Your task to perform on an android device: turn off sleep mode Image 0: 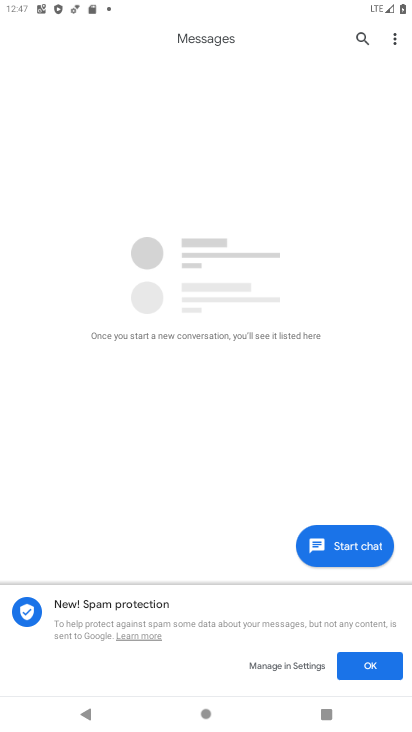
Step 0: press home button
Your task to perform on an android device: turn off sleep mode Image 1: 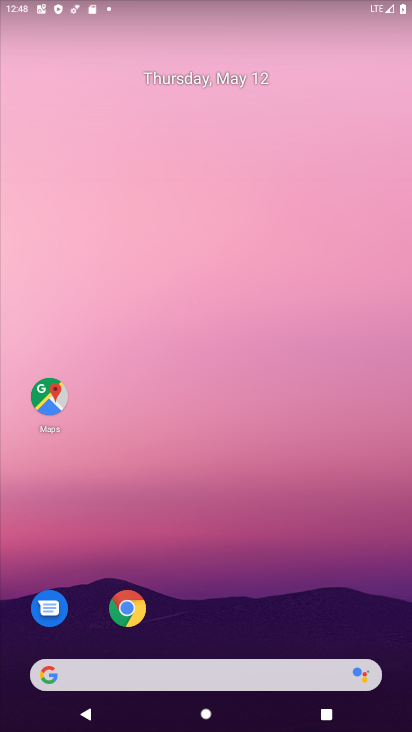
Step 1: drag from (290, 635) to (280, 15)
Your task to perform on an android device: turn off sleep mode Image 2: 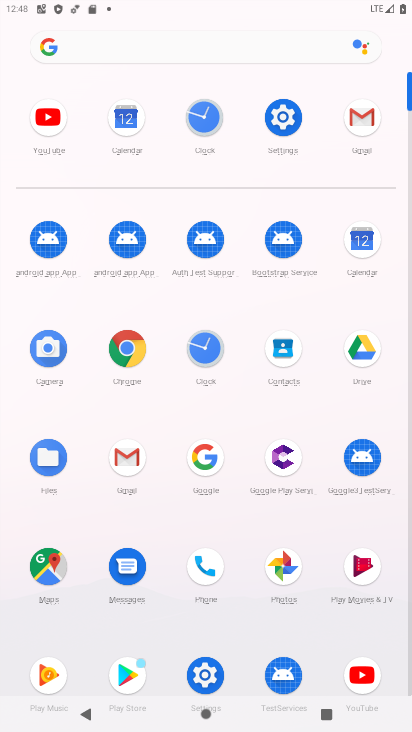
Step 2: click (281, 126)
Your task to perform on an android device: turn off sleep mode Image 3: 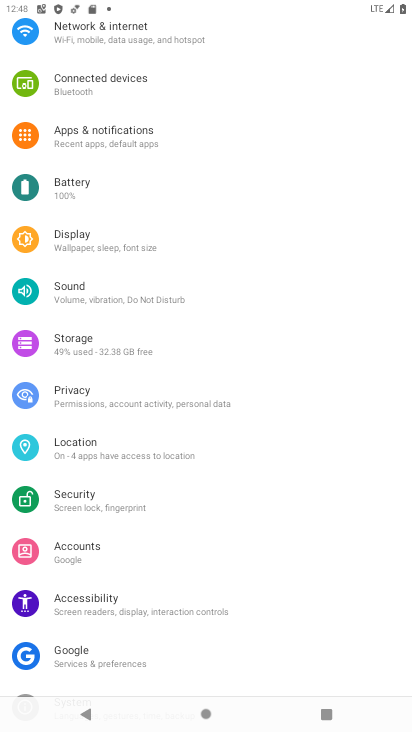
Step 3: click (82, 245)
Your task to perform on an android device: turn off sleep mode Image 4: 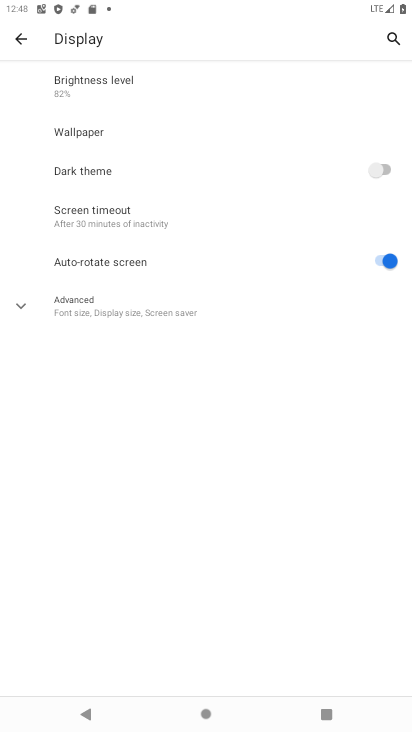
Step 4: click (26, 311)
Your task to perform on an android device: turn off sleep mode Image 5: 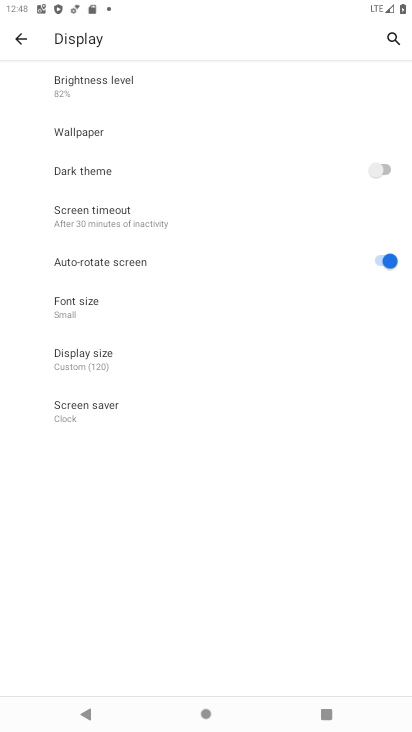
Step 5: task complete